Your task to perform on an android device: allow cookies in the chrome app Image 0: 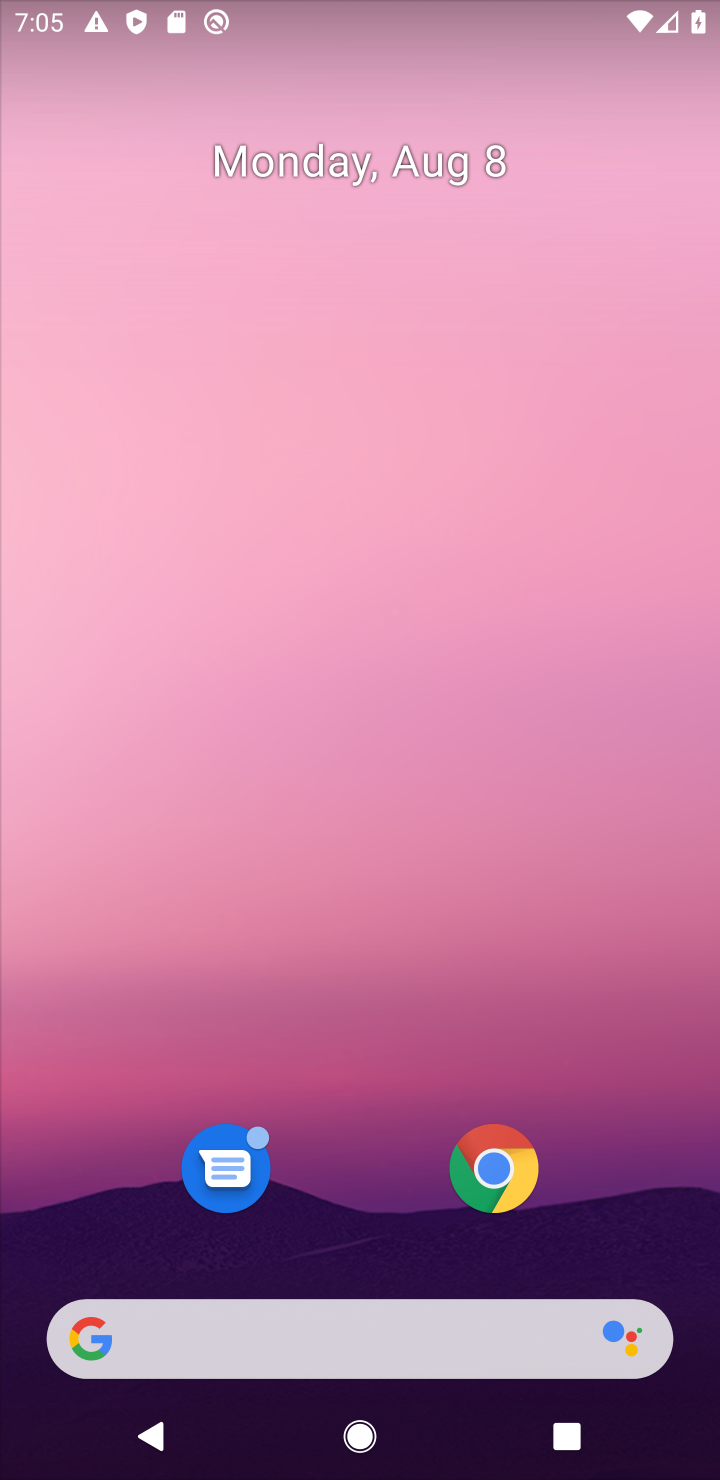
Step 0: drag from (640, 1226) to (348, 44)
Your task to perform on an android device: allow cookies in the chrome app Image 1: 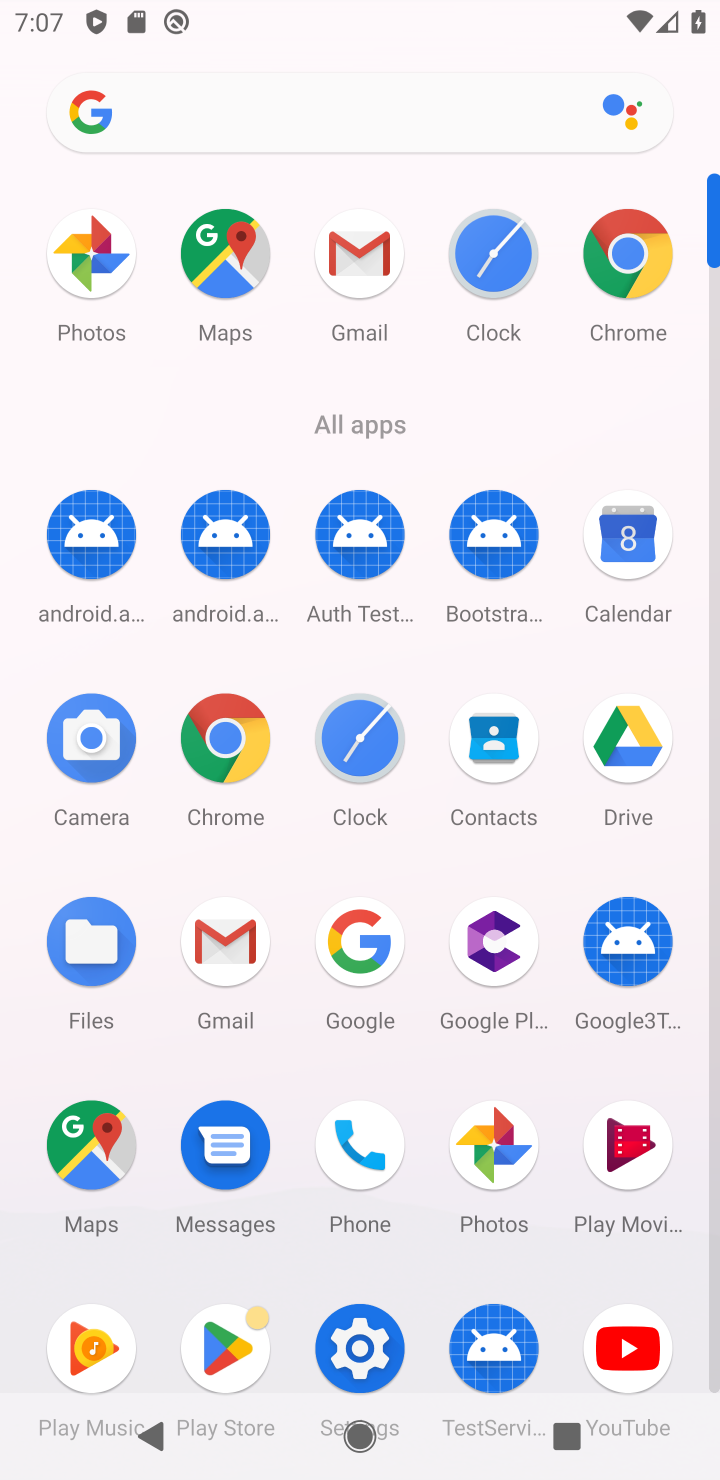
Step 1: click (610, 266)
Your task to perform on an android device: allow cookies in the chrome app Image 2: 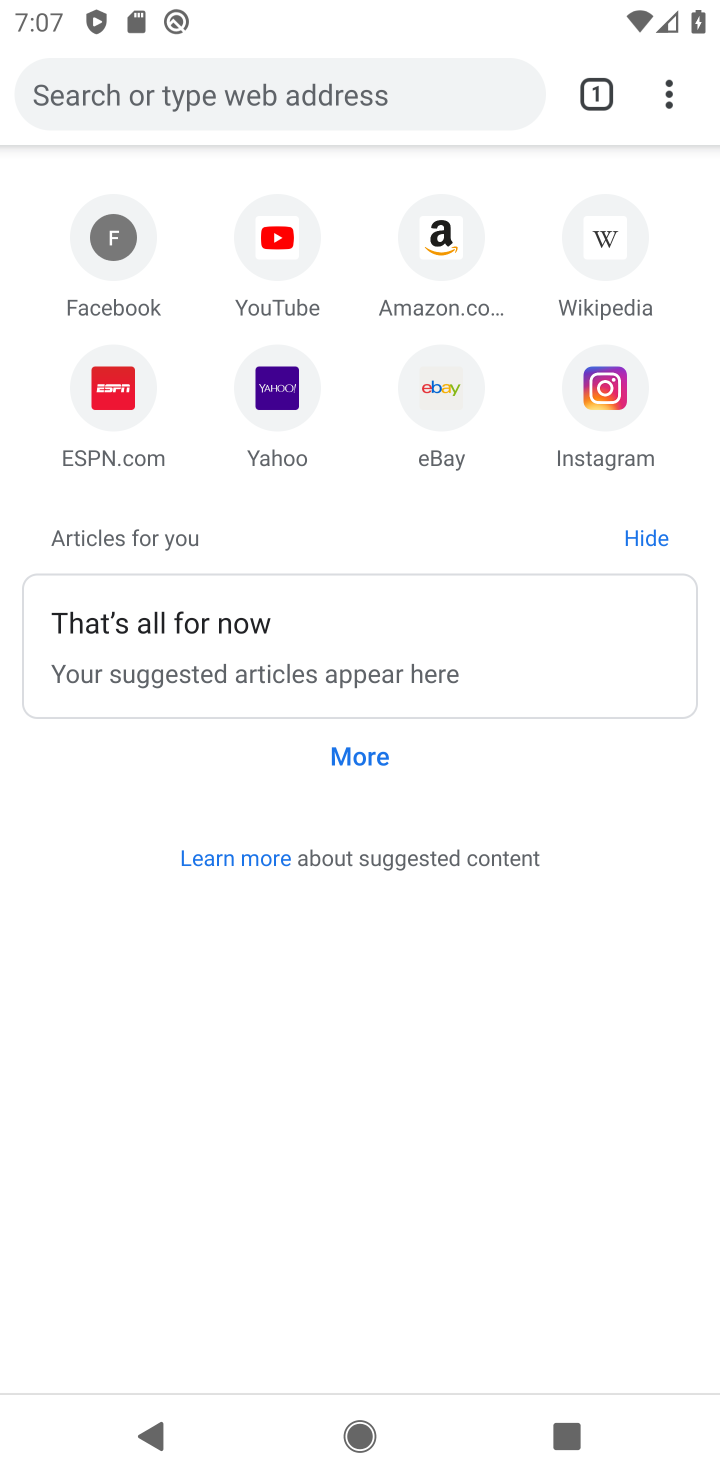
Step 2: click (670, 91)
Your task to perform on an android device: allow cookies in the chrome app Image 3: 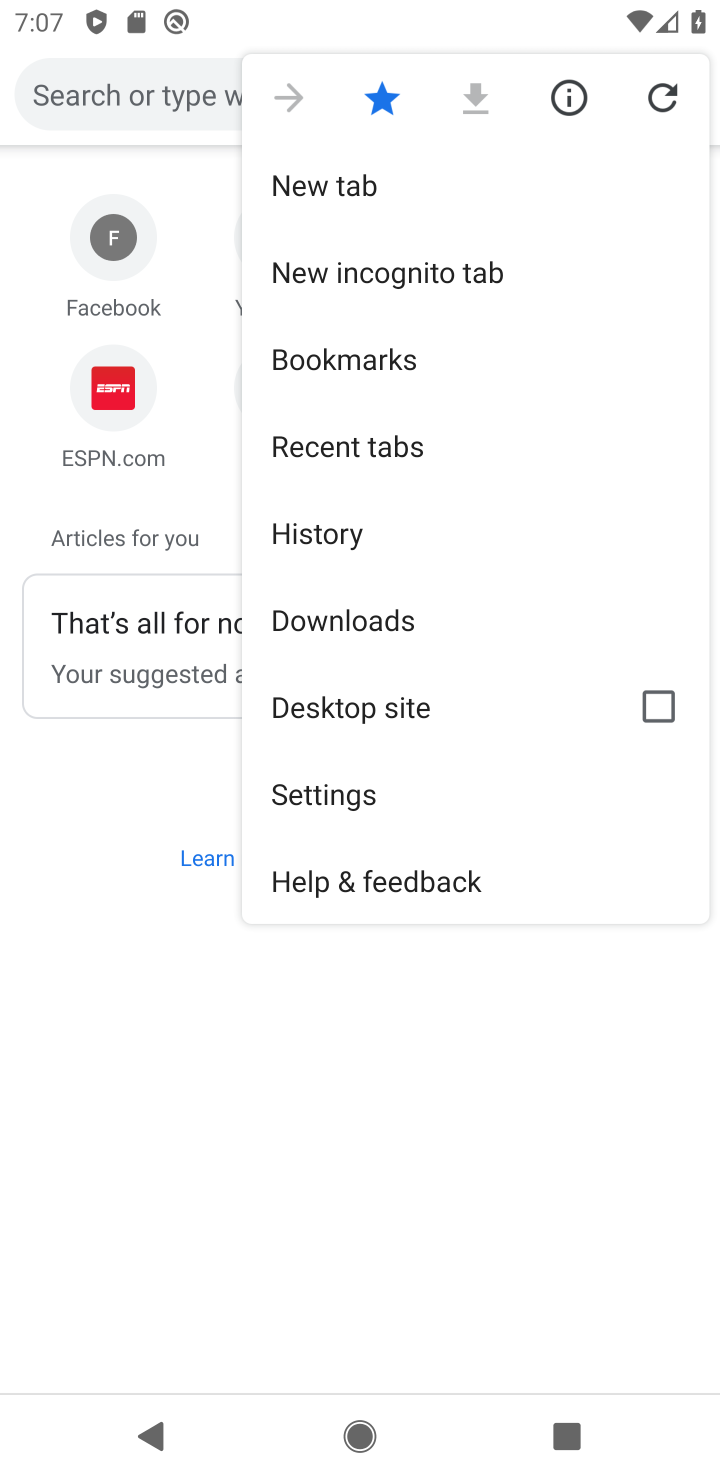
Step 3: click (306, 787)
Your task to perform on an android device: allow cookies in the chrome app Image 4: 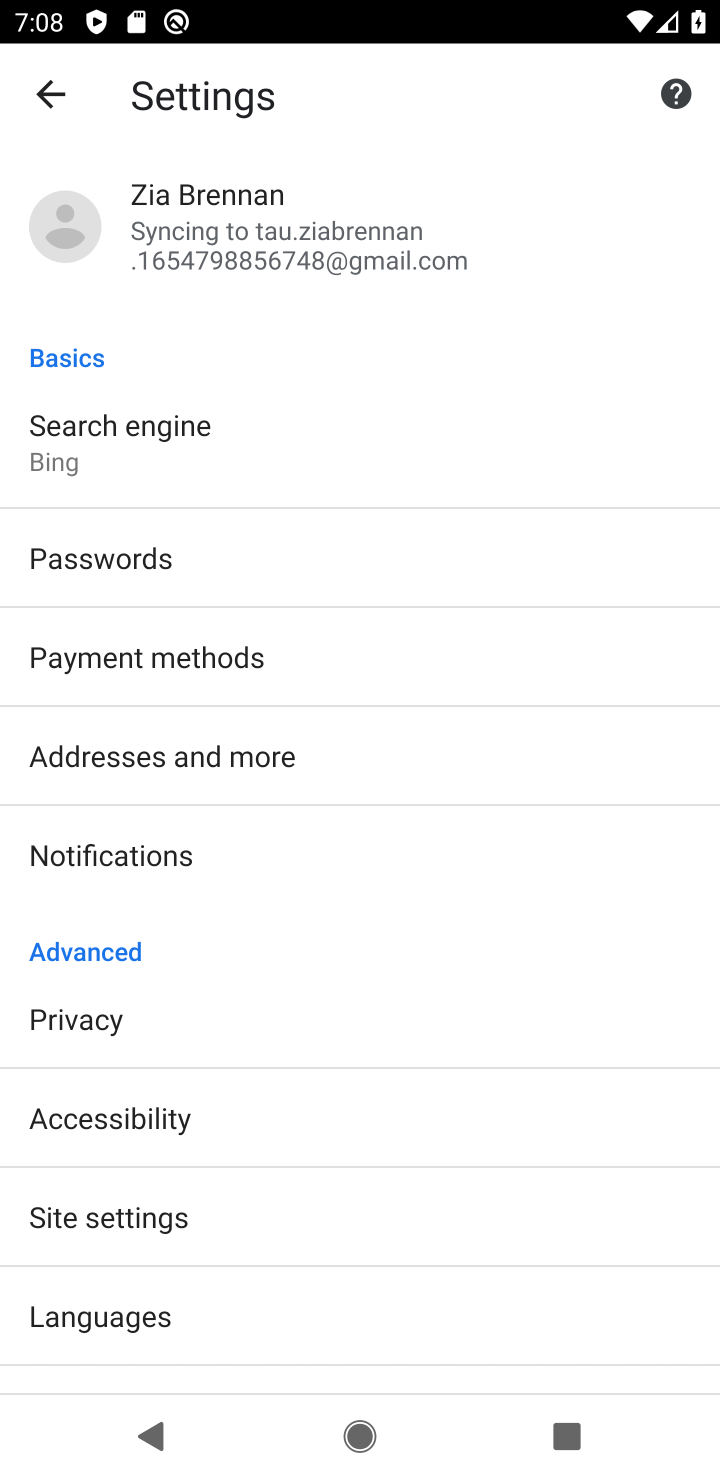
Step 4: task complete